Your task to perform on an android device: Open Maps and search for coffee Image 0: 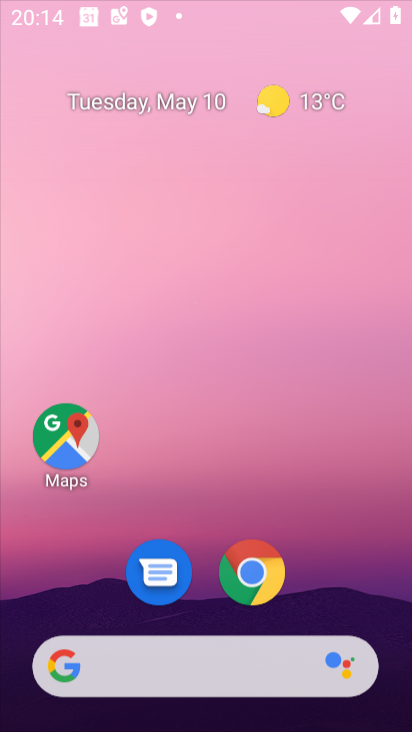
Step 0: click (369, 32)
Your task to perform on an android device: Open Maps and search for coffee Image 1: 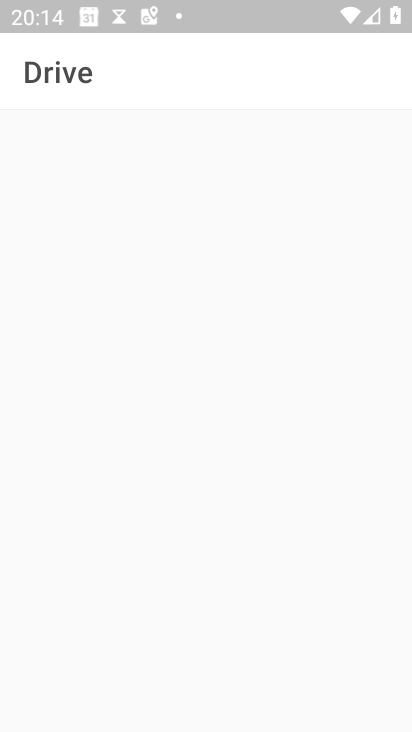
Step 1: press home button
Your task to perform on an android device: Open Maps and search for coffee Image 2: 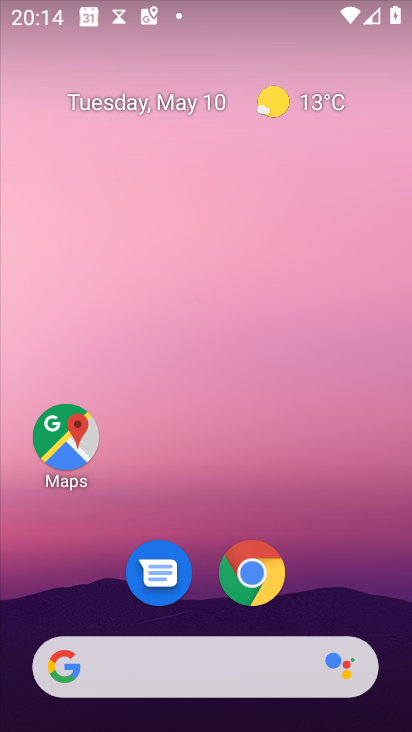
Step 2: click (69, 440)
Your task to perform on an android device: Open Maps and search for coffee Image 3: 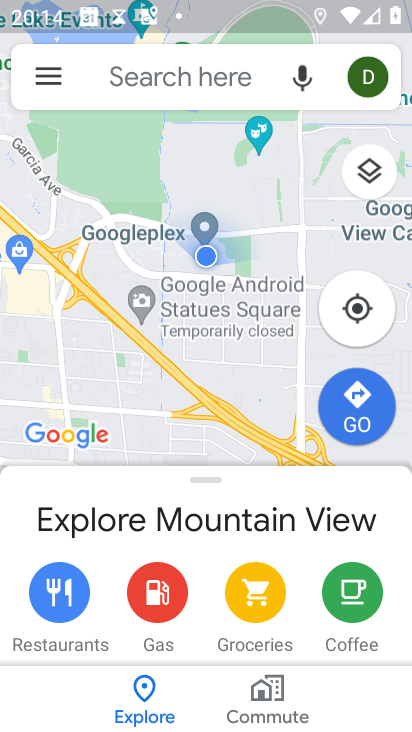
Step 3: click (139, 81)
Your task to perform on an android device: Open Maps and search for coffee Image 4: 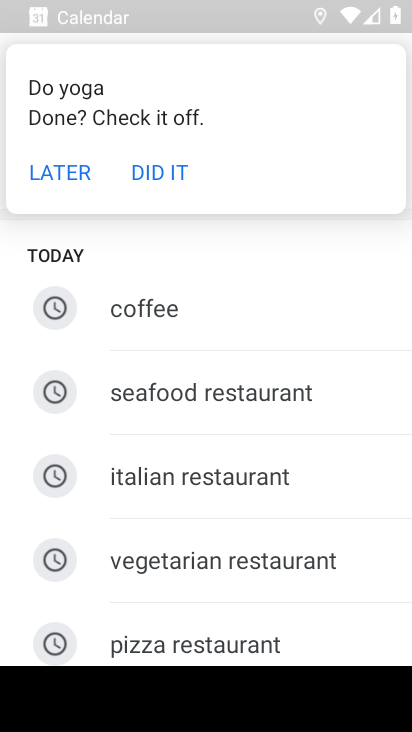
Step 4: type "coffee"
Your task to perform on an android device: Open Maps and search for coffee Image 5: 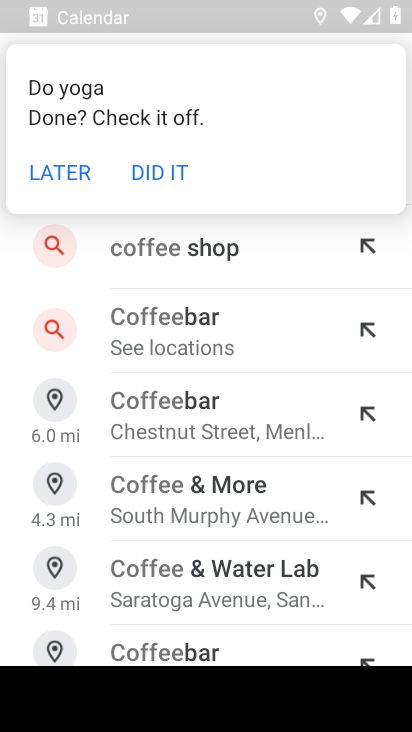
Step 5: click (83, 174)
Your task to perform on an android device: Open Maps and search for coffee Image 6: 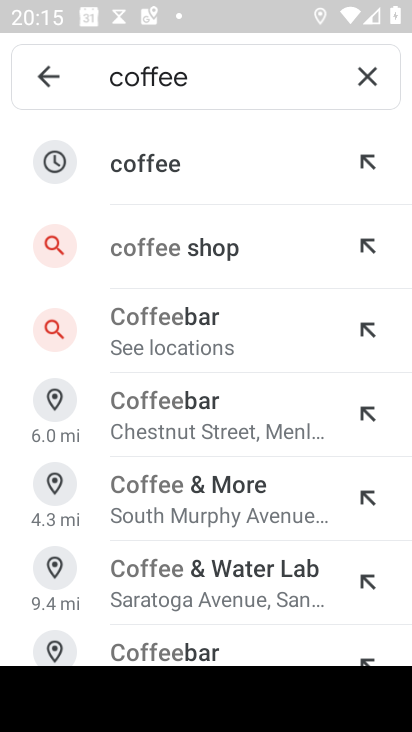
Step 6: click (181, 157)
Your task to perform on an android device: Open Maps and search for coffee Image 7: 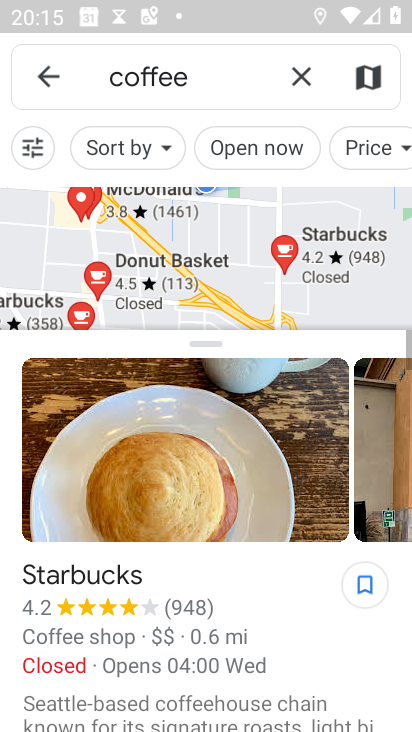
Step 7: task complete